Your task to perform on an android device: Open Google Image 0: 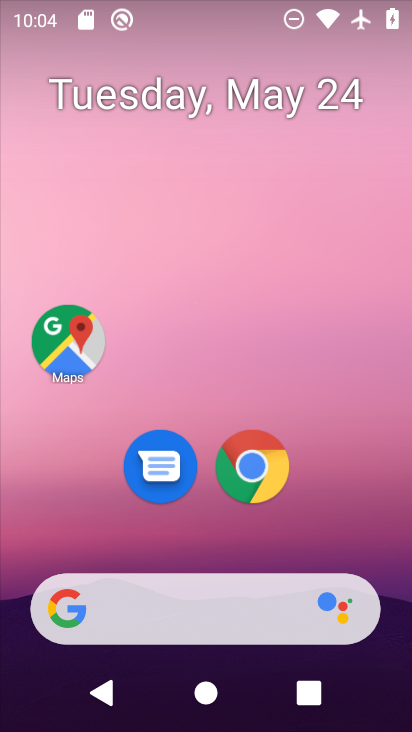
Step 0: click (157, 604)
Your task to perform on an android device: Open Google Image 1: 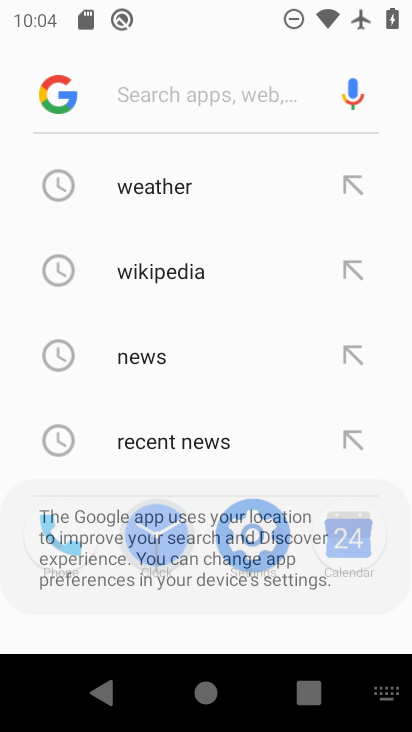
Step 1: click (54, 93)
Your task to perform on an android device: Open Google Image 2: 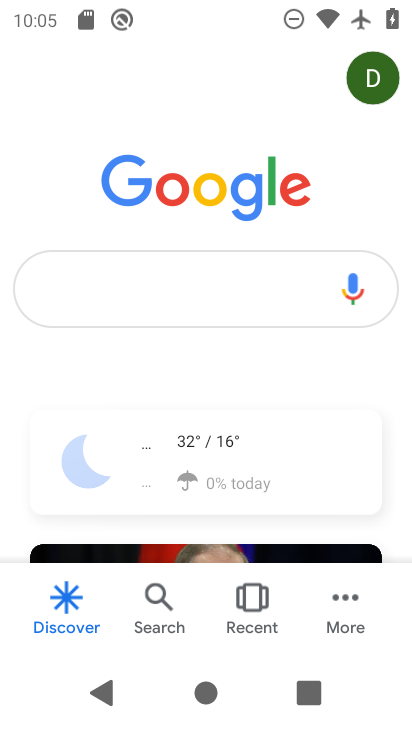
Step 2: task complete